Your task to perform on an android device: check android version Image 0: 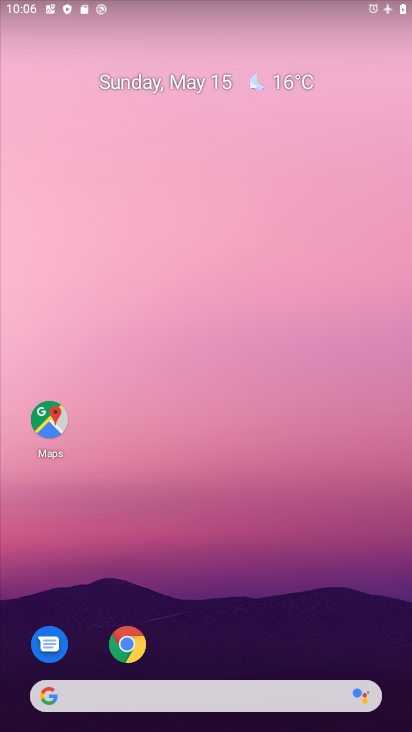
Step 0: drag from (154, 605) to (259, 128)
Your task to perform on an android device: check android version Image 1: 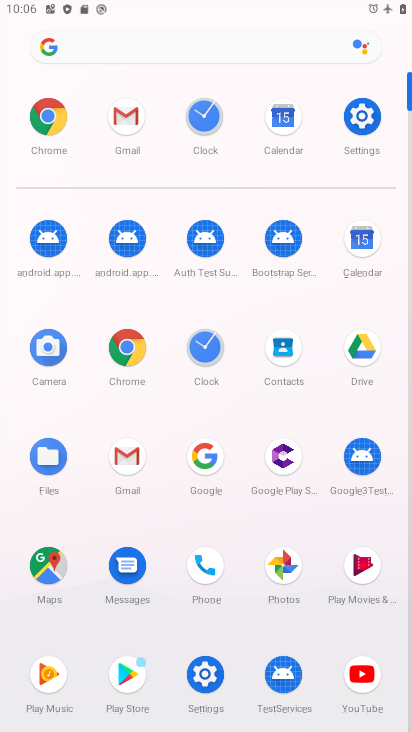
Step 1: click (370, 108)
Your task to perform on an android device: check android version Image 2: 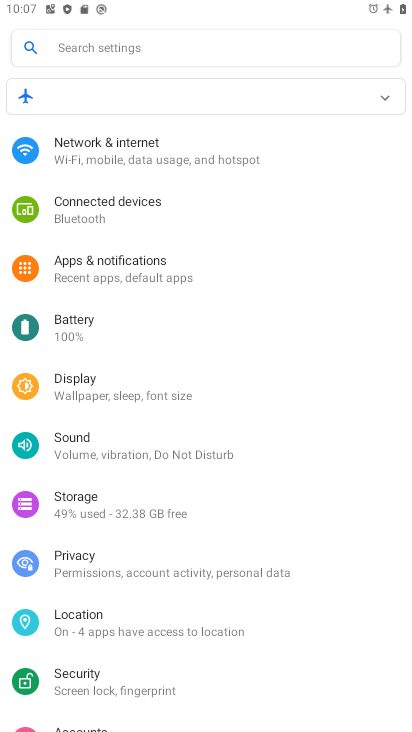
Step 2: drag from (152, 634) to (302, 78)
Your task to perform on an android device: check android version Image 3: 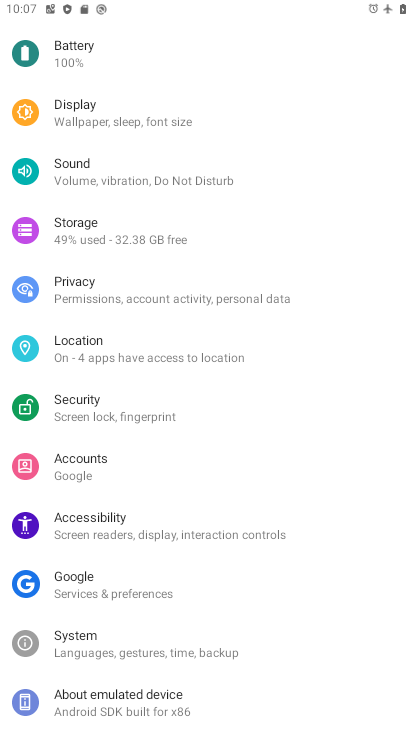
Step 3: click (154, 706)
Your task to perform on an android device: check android version Image 4: 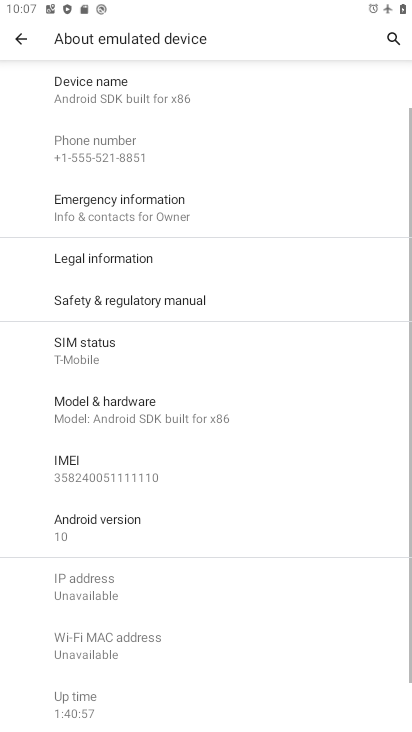
Step 4: click (124, 527)
Your task to perform on an android device: check android version Image 5: 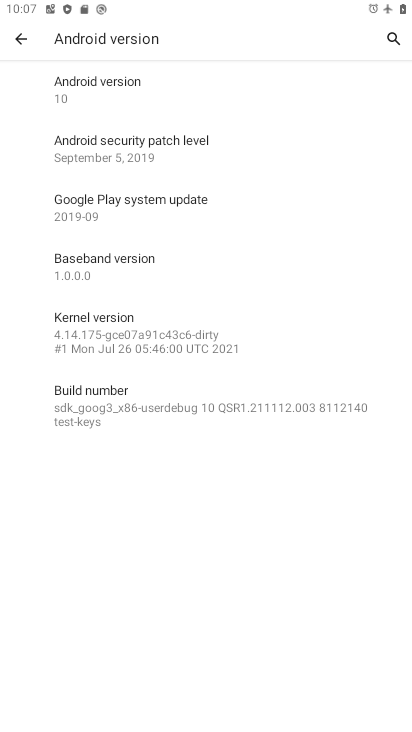
Step 5: task complete